Your task to perform on an android device: Search for pizza restaurants on Maps Image 0: 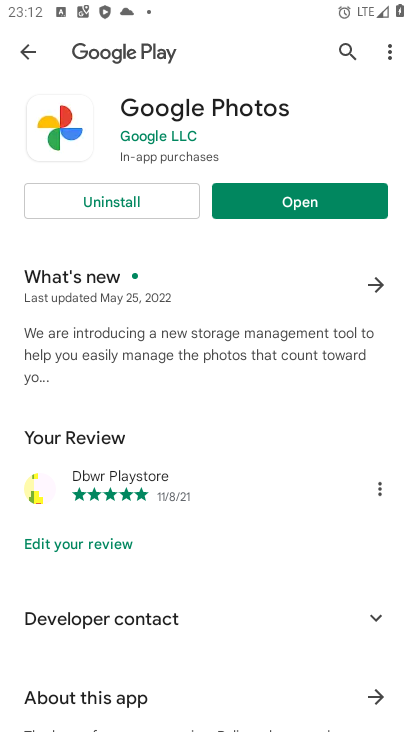
Step 0: press home button
Your task to perform on an android device: Search for pizza restaurants on Maps Image 1: 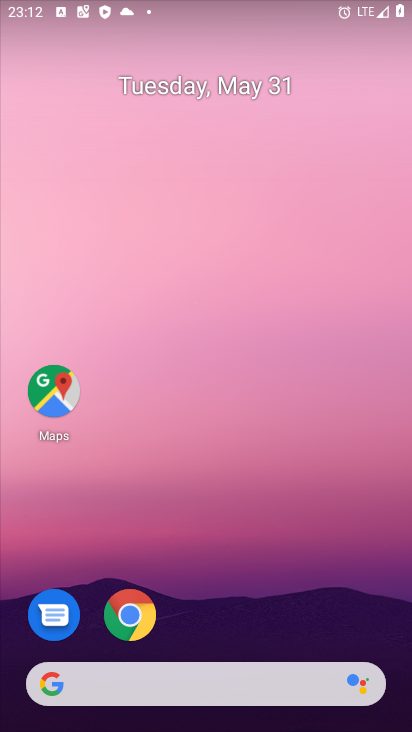
Step 1: click (58, 395)
Your task to perform on an android device: Search for pizza restaurants on Maps Image 2: 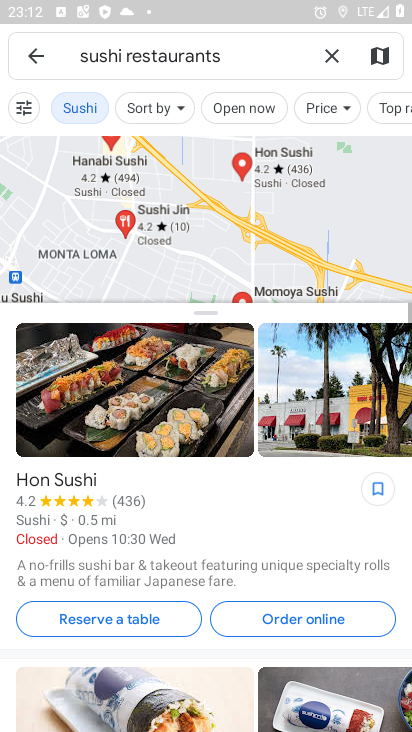
Step 2: click (330, 57)
Your task to perform on an android device: Search for pizza restaurants on Maps Image 3: 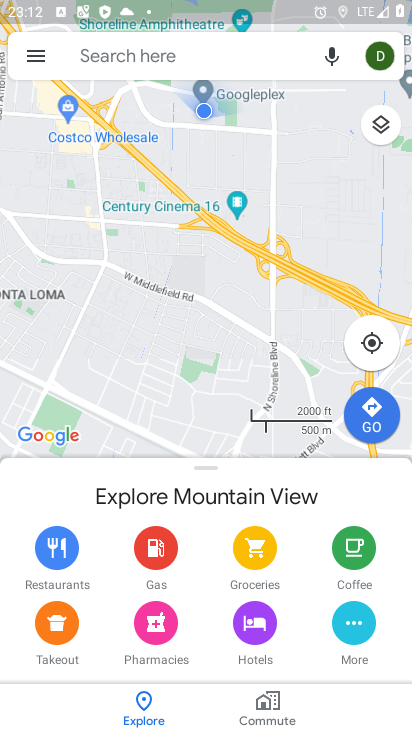
Step 3: click (132, 54)
Your task to perform on an android device: Search for pizza restaurants on Maps Image 4: 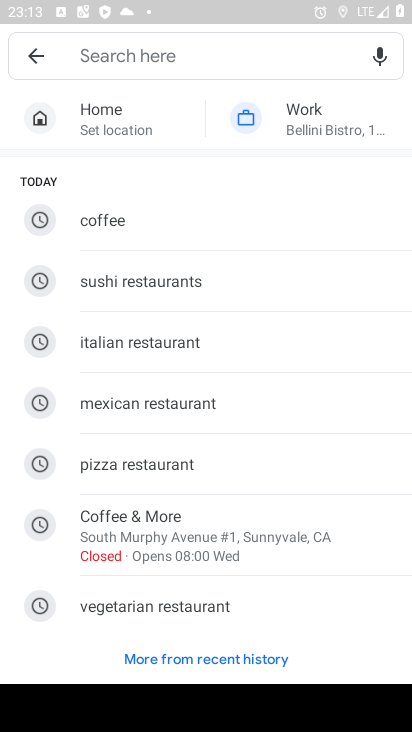
Step 4: type "pizza restaurants"
Your task to perform on an android device: Search for pizza restaurants on Maps Image 5: 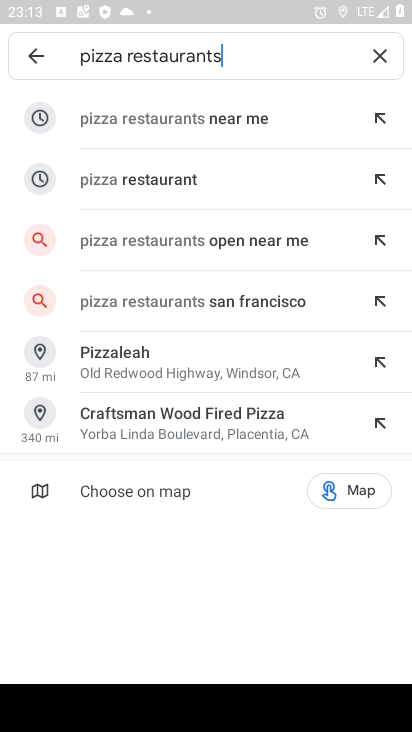
Step 5: click (133, 197)
Your task to perform on an android device: Search for pizza restaurants on Maps Image 6: 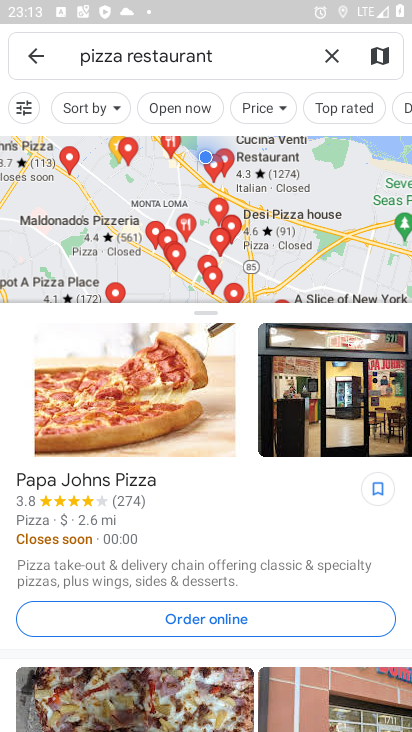
Step 6: task complete